Your task to perform on an android device: Search for seafood restaurants on Google Maps Image 0: 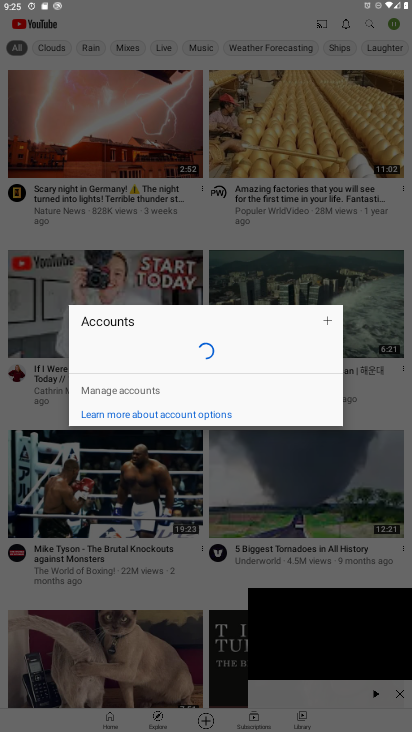
Step 0: press home button
Your task to perform on an android device: Search for seafood restaurants on Google Maps Image 1: 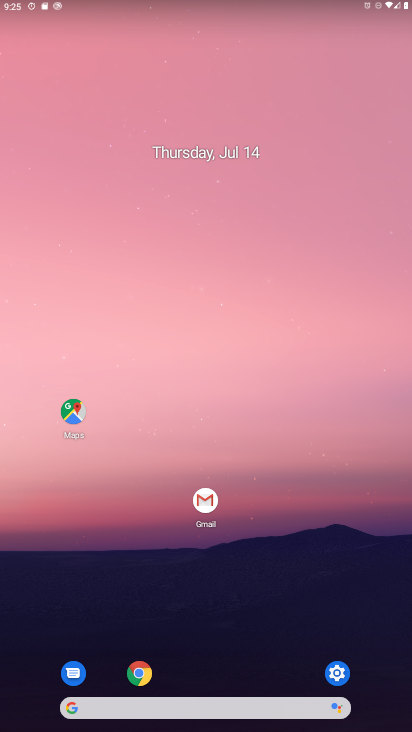
Step 1: click (80, 412)
Your task to perform on an android device: Search for seafood restaurants on Google Maps Image 2: 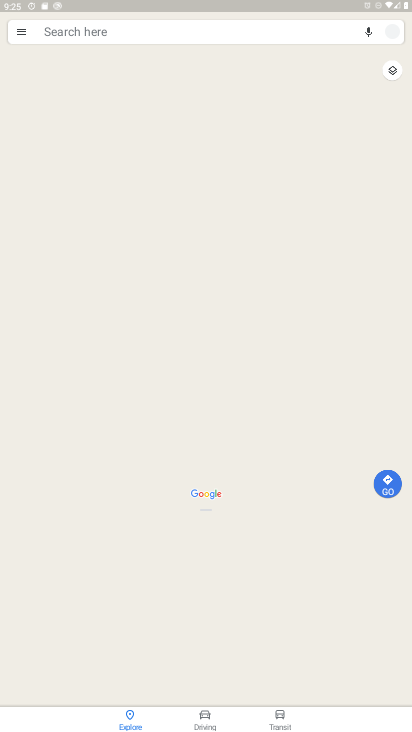
Step 2: click (114, 34)
Your task to perform on an android device: Search for seafood restaurants on Google Maps Image 3: 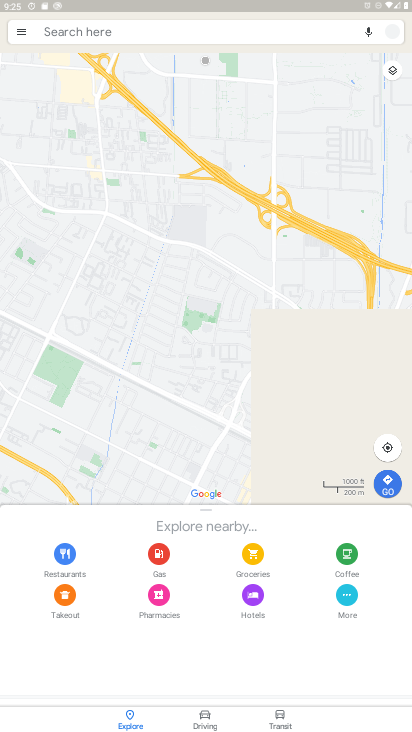
Step 3: click (109, 30)
Your task to perform on an android device: Search for seafood restaurants on Google Maps Image 4: 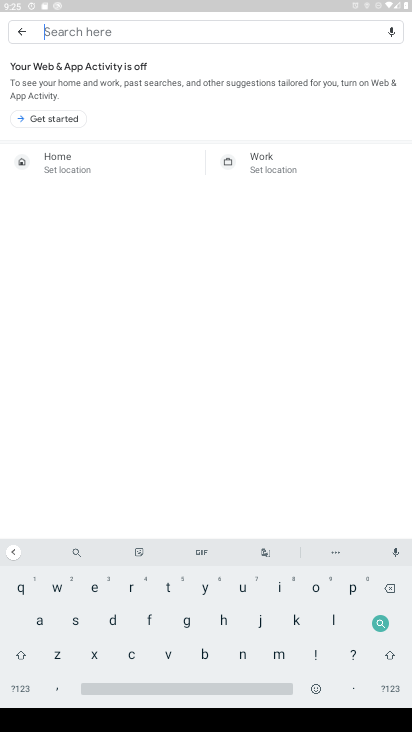
Step 4: click (75, 621)
Your task to perform on an android device: Search for seafood restaurants on Google Maps Image 5: 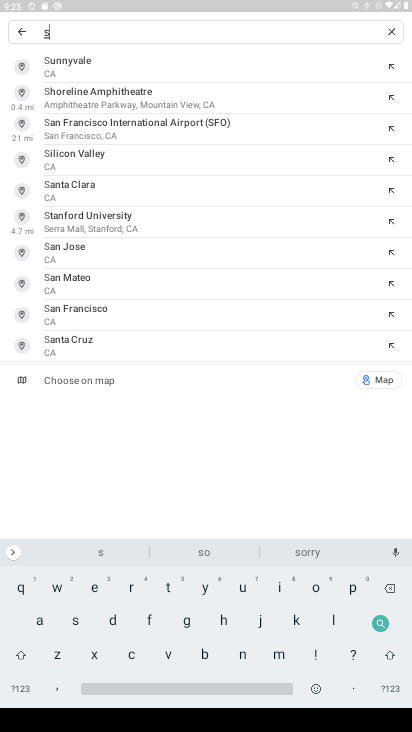
Step 5: click (93, 587)
Your task to perform on an android device: Search for seafood restaurants on Google Maps Image 6: 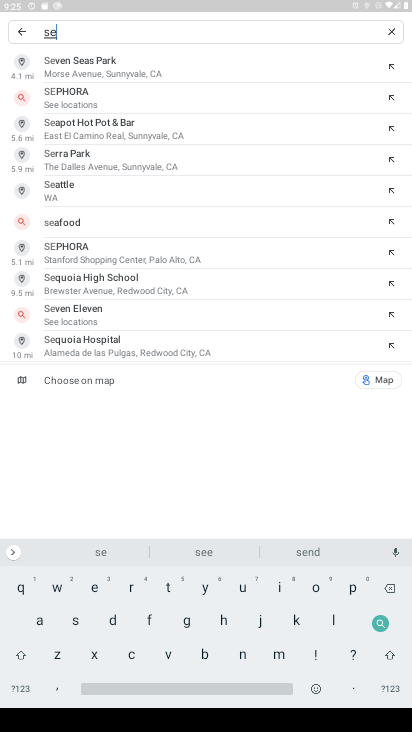
Step 6: click (33, 617)
Your task to perform on an android device: Search for seafood restaurants on Google Maps Image 7: 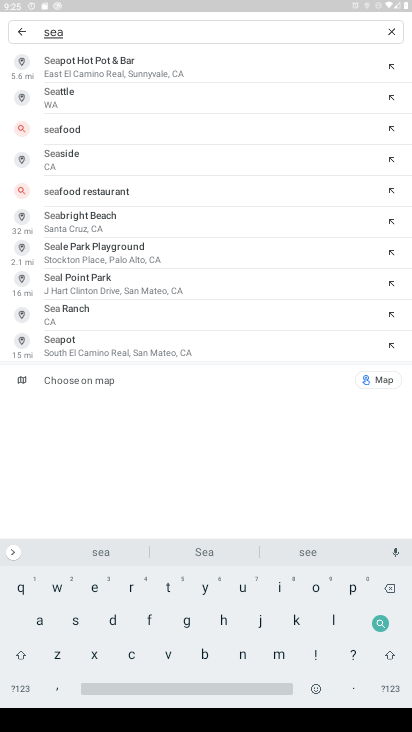
Step 7: click (145, 616)
Your task to perform on an android device: Search for seafood restaurants on Google Maps Image 8: 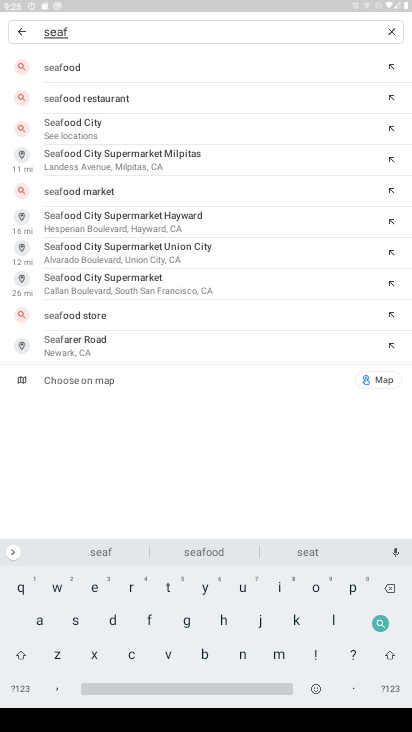
Step 8: click (90, 62)
Your task to perform on an android device: Search for seafood restaurants on Google Maps Image 9: 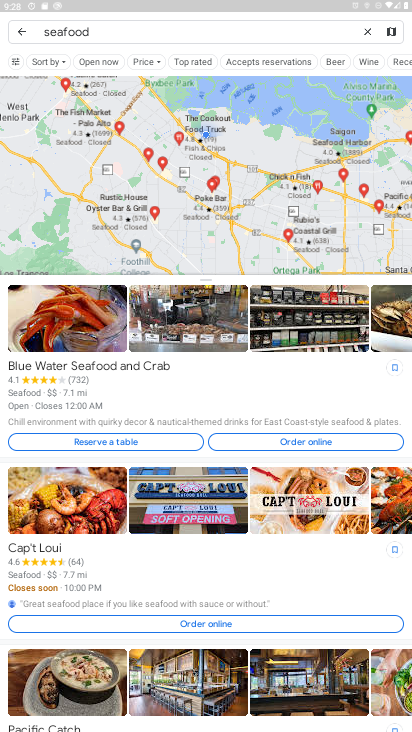
Step 9: task complete